Your task to perform on an android device: Open Google Chrome and open the bookmarks view Image 0: 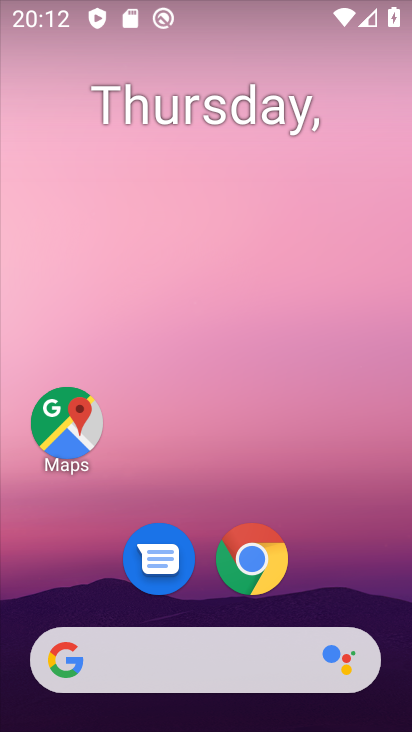
Step 0: click (275, 569)
Your task to perform on an android device: Open Google Chrome and open the bookmarks view Image 1: 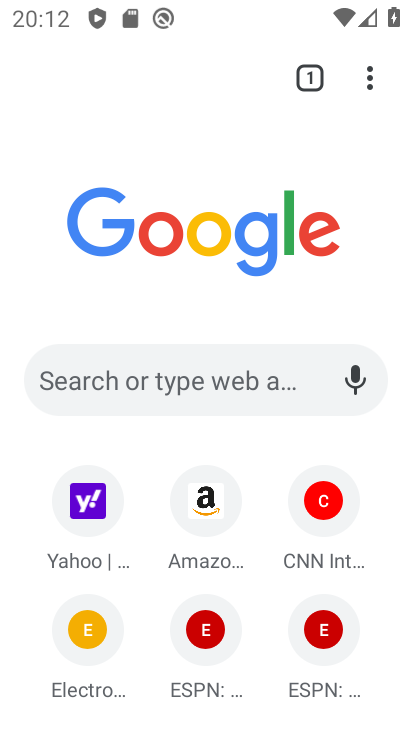
Step 1: drag from (374, 63) to (166, 277)
Your task to perform on an android device: Open Google Chrome and open the bookmarks view Image 2: 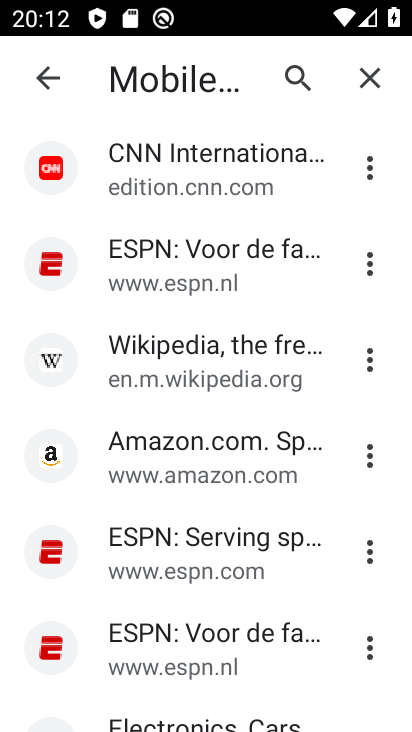
Step 2: click (189, 183)
Your task to perform on an android device: Open Google Chrome and open the bookmarks view Image 3: 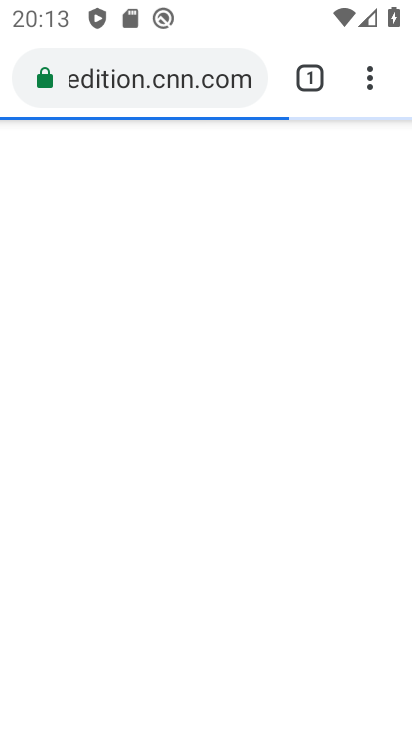
Step 3: task complete